Your task to perform on an android device: Open wifi settings Image 0: 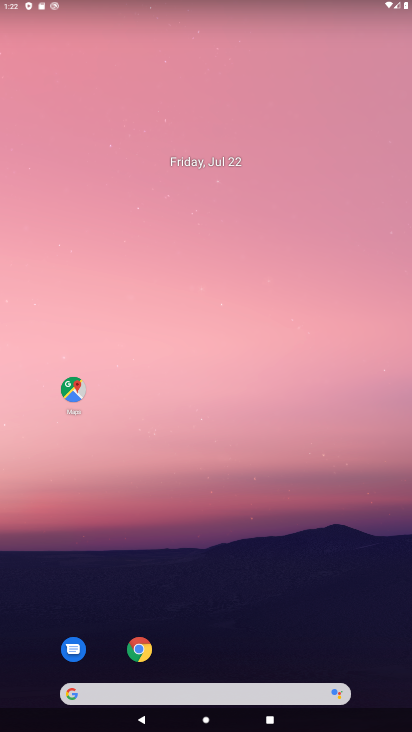
Step 0: drag from (160, 7) to (237, 361)
Your task to perform on an android device: Open wifi settings Image 1: 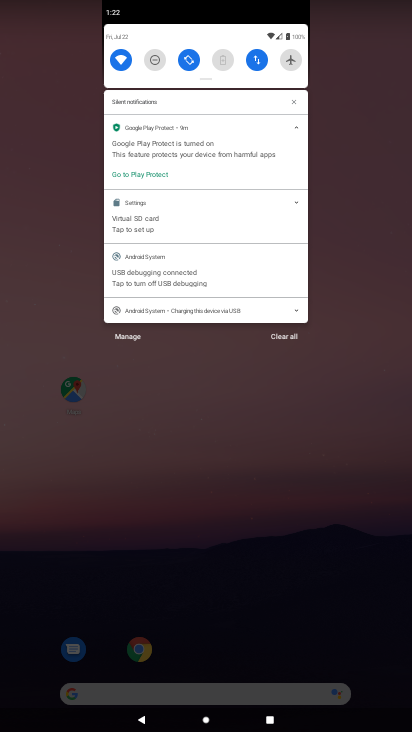
Step 1: click (117, 60)
Your task to perform on an android device: Open wifi settings Image 2: 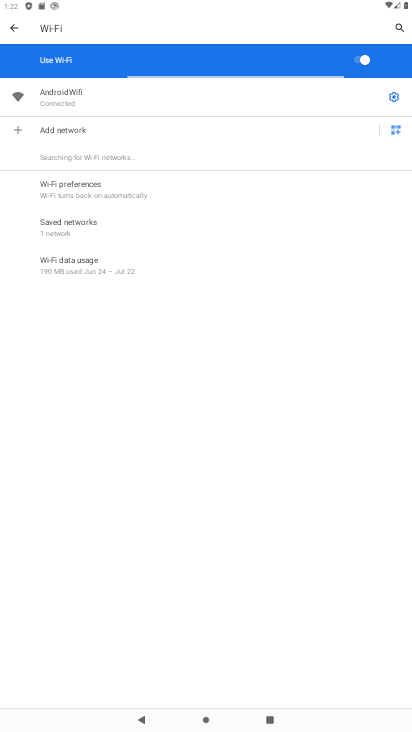
Step 2: task complete